Your task to perform on an android device: change alarm snooze length Image 0: 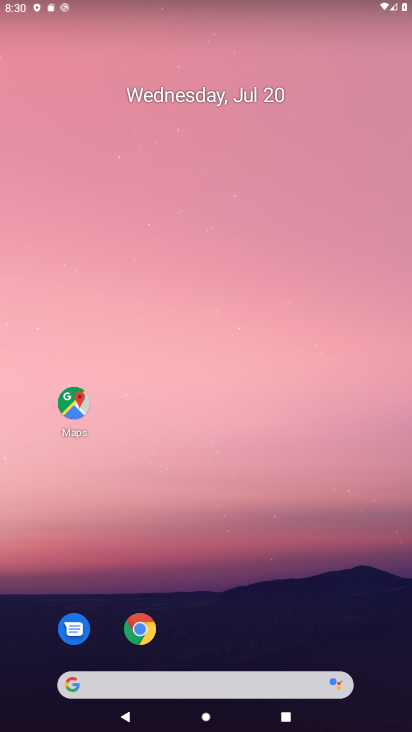
Step 0: drag from (182, 641) to (189, 240)
Your task to perform on an android device: change alarm snooze length Image 1: 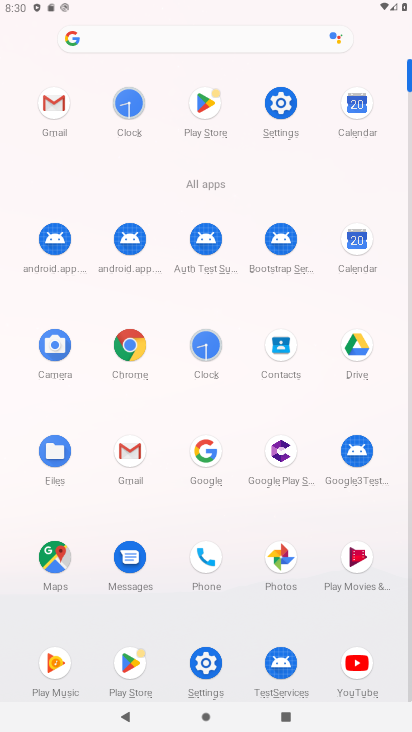
Step 1: click (127, 117)
Your task to perform on an android device: change alarm snooze length Image 2: 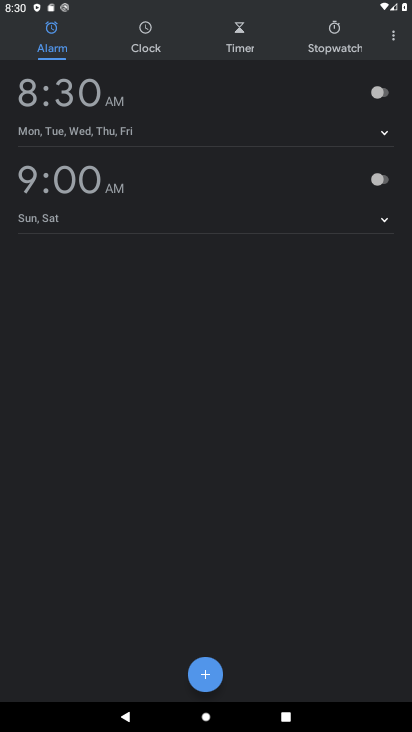
Step 2: click (389, 41)
Your task to perform on an android device: change alarm snooze length Image 3: 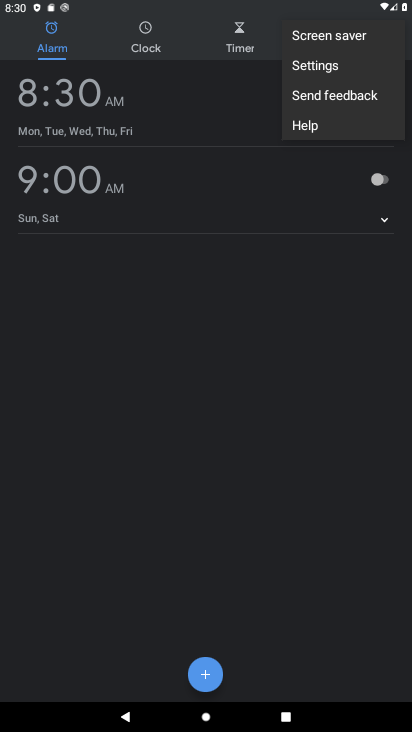
Step 3: click (265, 351)
Your task to perform on an android device: change alarm snooze length Image 4: 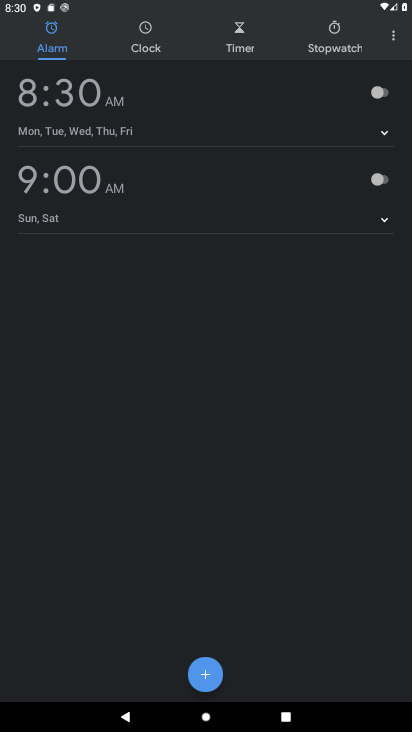
Step 4: click (397, 31)
Your task to perform on an android device: change alarm snooze length Image 5: 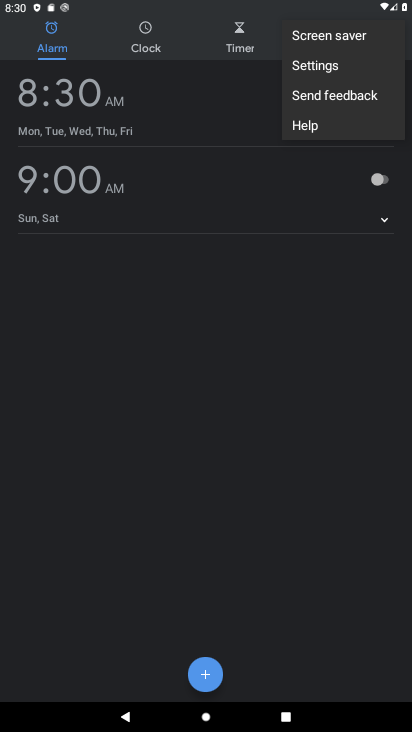
Step 5: click (354, 64)
Your task to perform on an android device: change alarm snooze length Image 6: 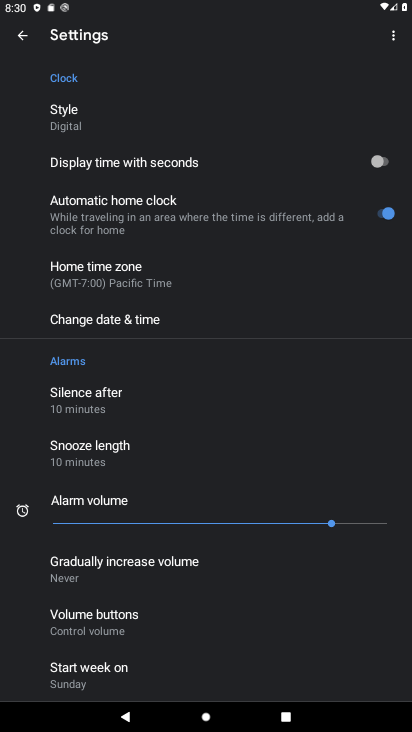
Step 6: click (109, 434)
Your task to perform on an android device: change alarm snooze length Image 7: 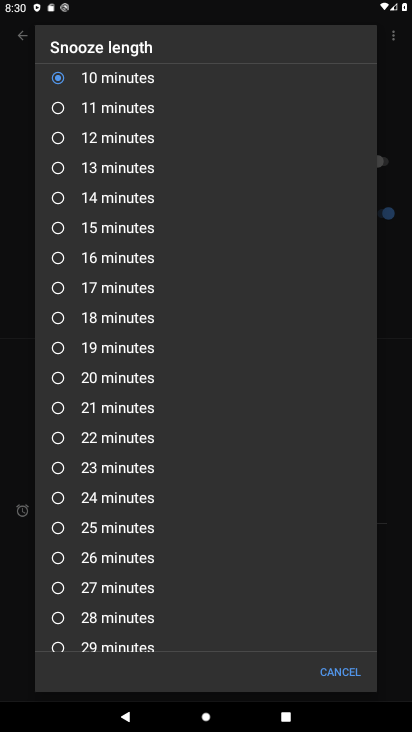
Step 7: click (125, 588)
Your task to perform on an android device: change alarm snooze length Image 8: 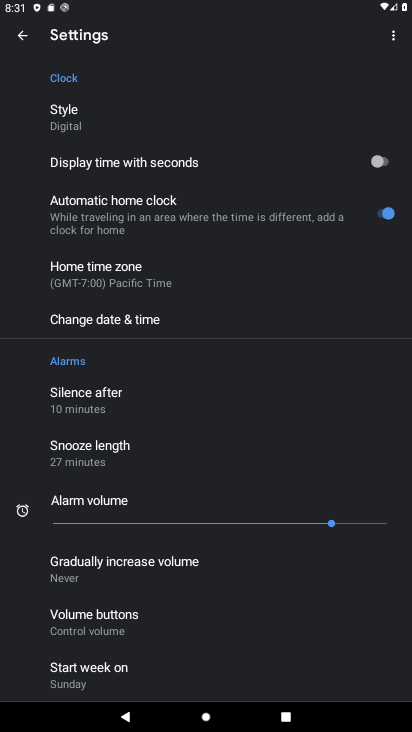
Step 8: task complete